Your task to perform on an android device: Add "apple airpods" to the cart on ebay Image 0: 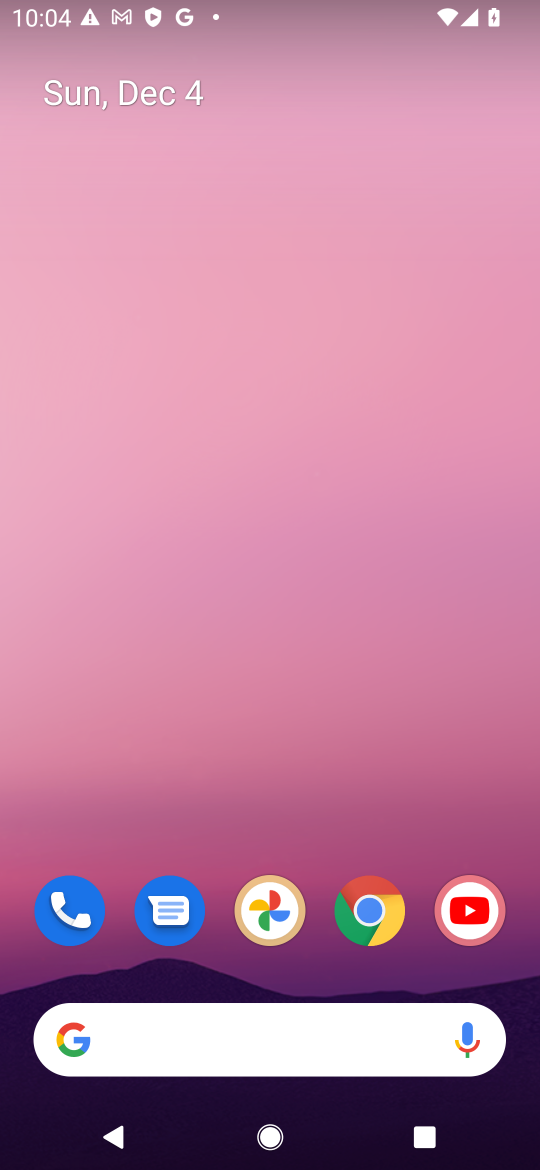
Step 0: drag from (360, 1109) to (313, 23)
Your task to perform on an android device: Add "apple airpods" to the cart on ebay Image 1: 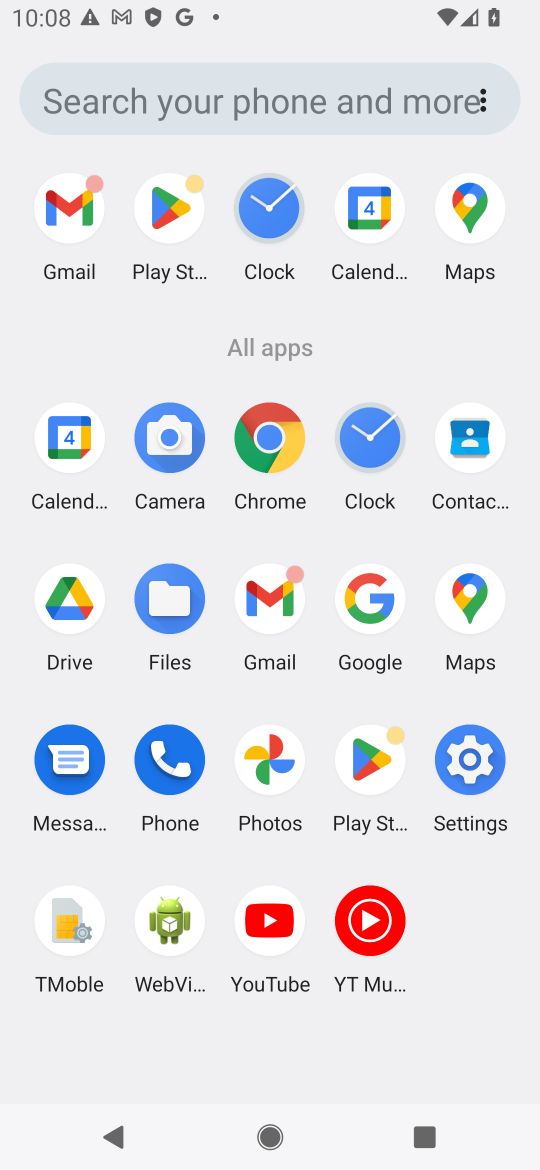
Step 1: click (264, 439)
Your task to perform on an android device: Add "apple airpods" to the cart on ebay Image 2: 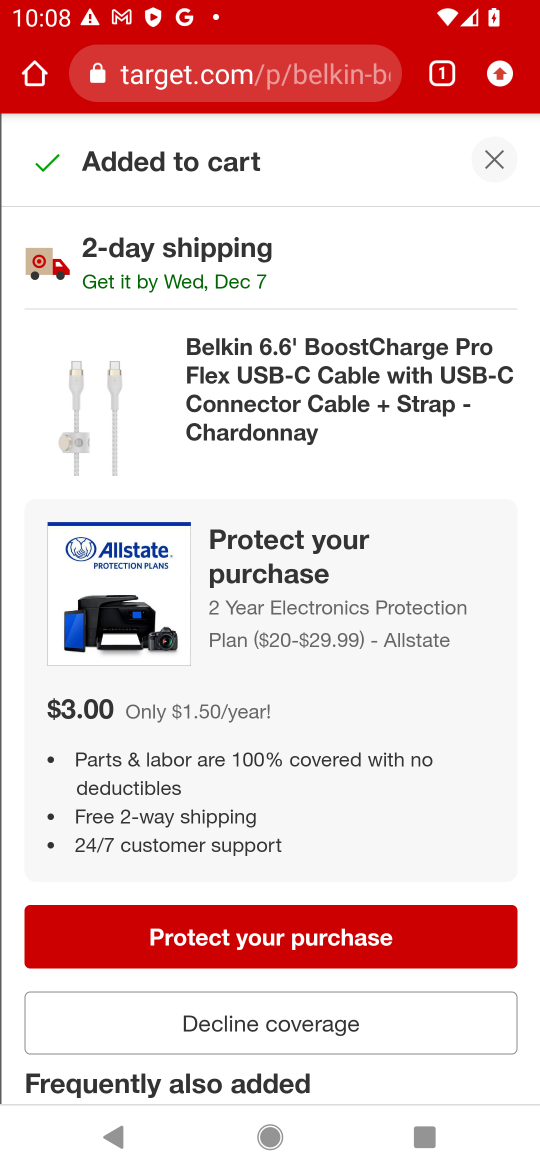
Step 2: click (225, 66)
Your task to perform on an android device: Add "apple airpods" to the cart on ebay Image 3: 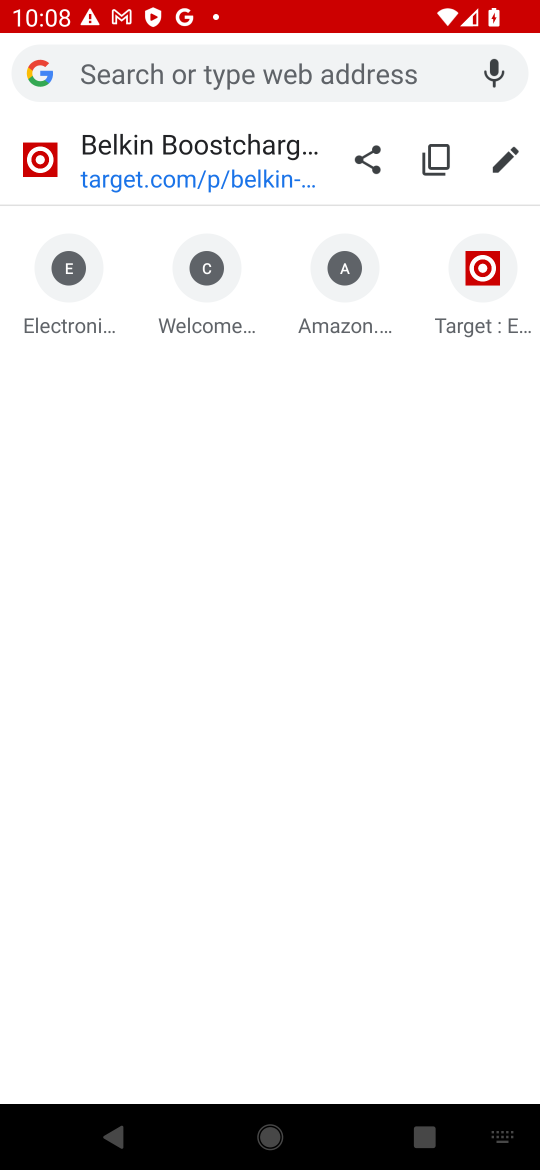
Step 3: type "ebay"
Your task to perform on an android device: Add "apple airpods" to the cart on ebay Image 4: 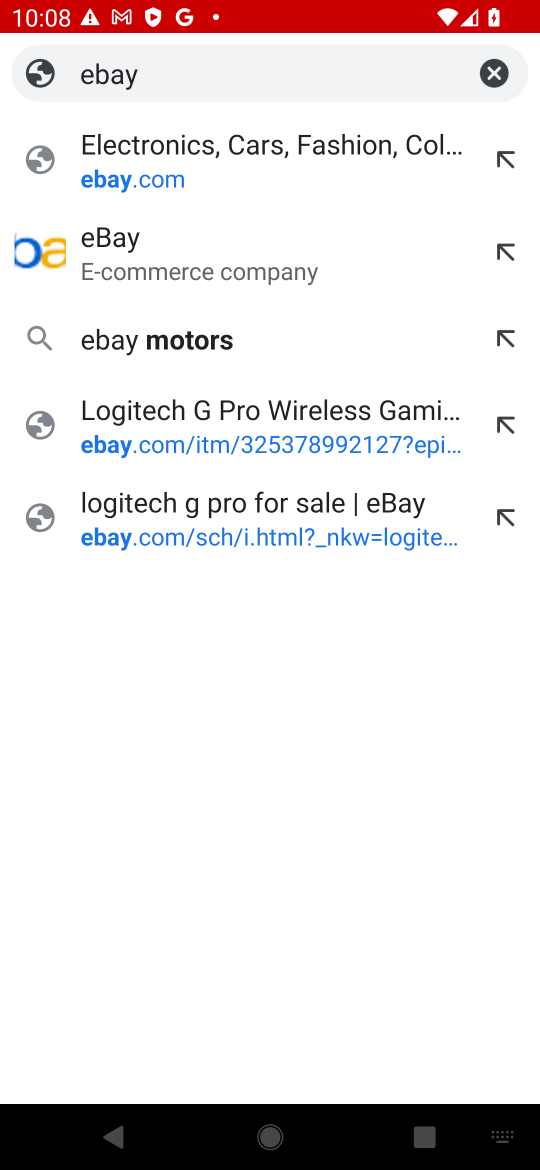
Step 4: click (105, 177)
Your task to perform on an android device: Add "apple airpods" to the cart on ebay Image 5: 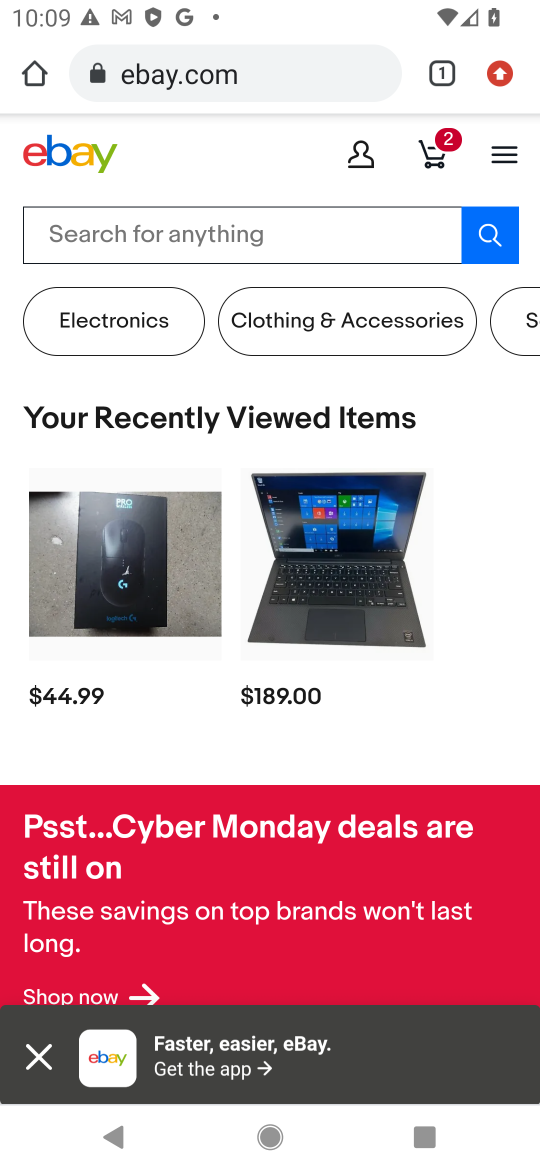
Step 5: click (233, 228)
Your task to perform on an android device: Add "apple airpods" to the cart on ebay Image 6: 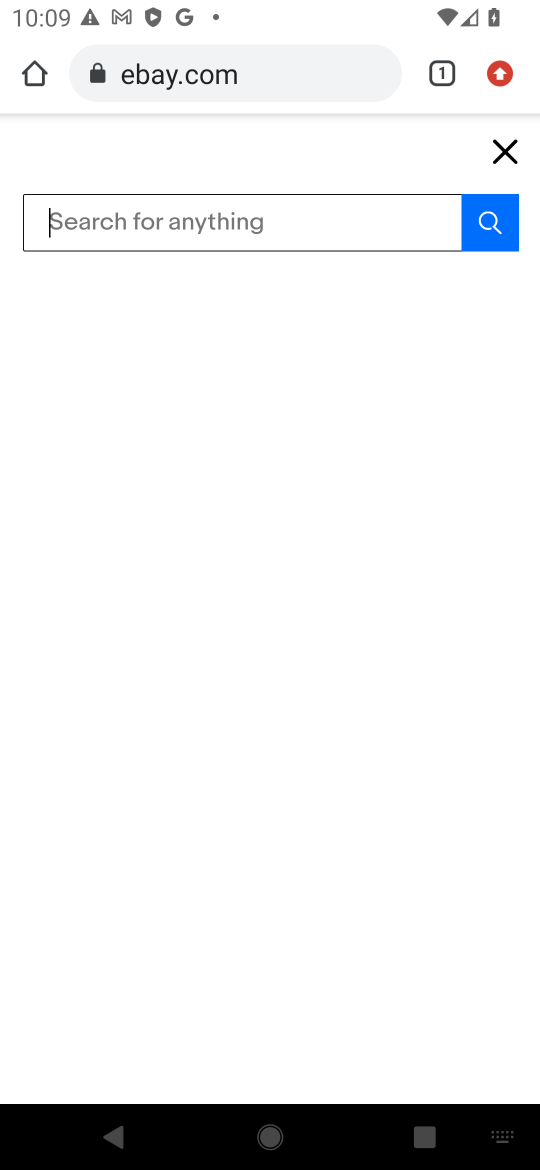
Step 6: type "apple airpods""
Your task to perform on an android device: Add "apple airpods" to the cart on ebay Image 7: 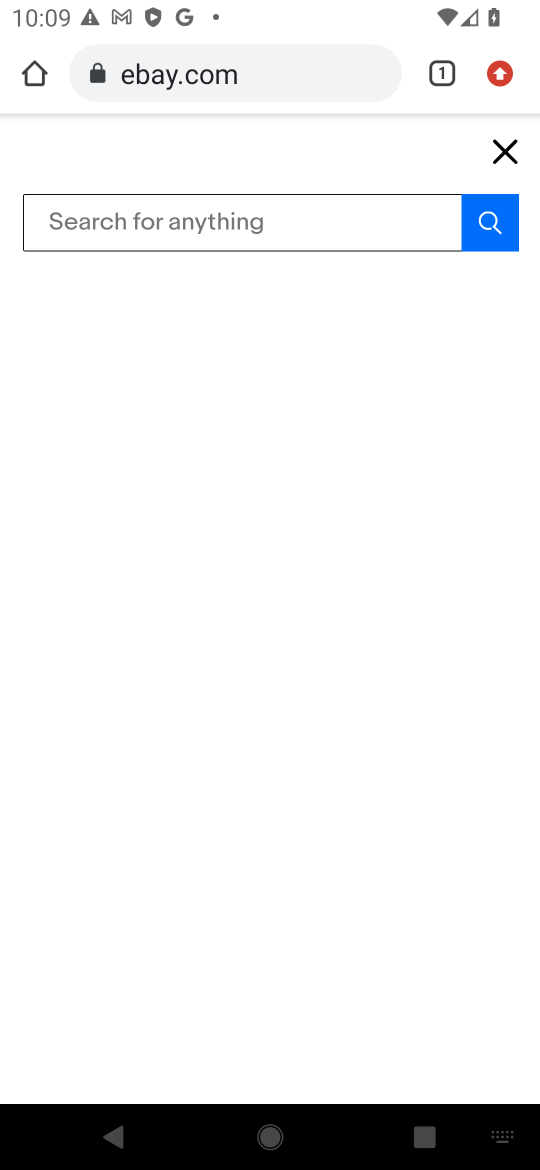
Step 7: type ""
Your task to perform on an android device: Add "apple airpods" to the cart on ebay Image 8: 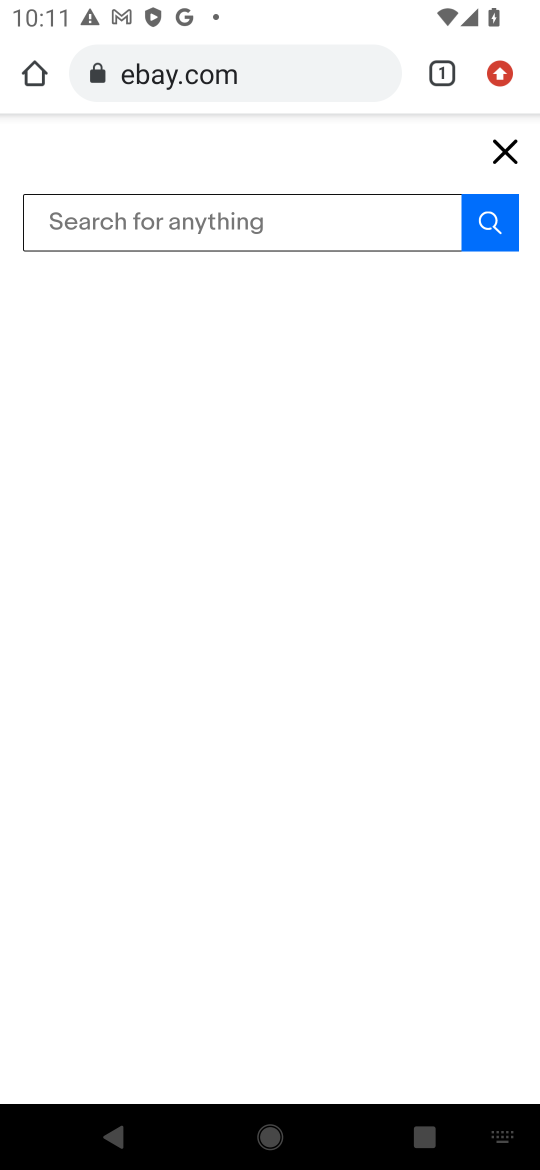
Step 8: type "apple airpods"
Your task to perform on an android device: Add "apple airpods" to the cart on ebay Image 9: 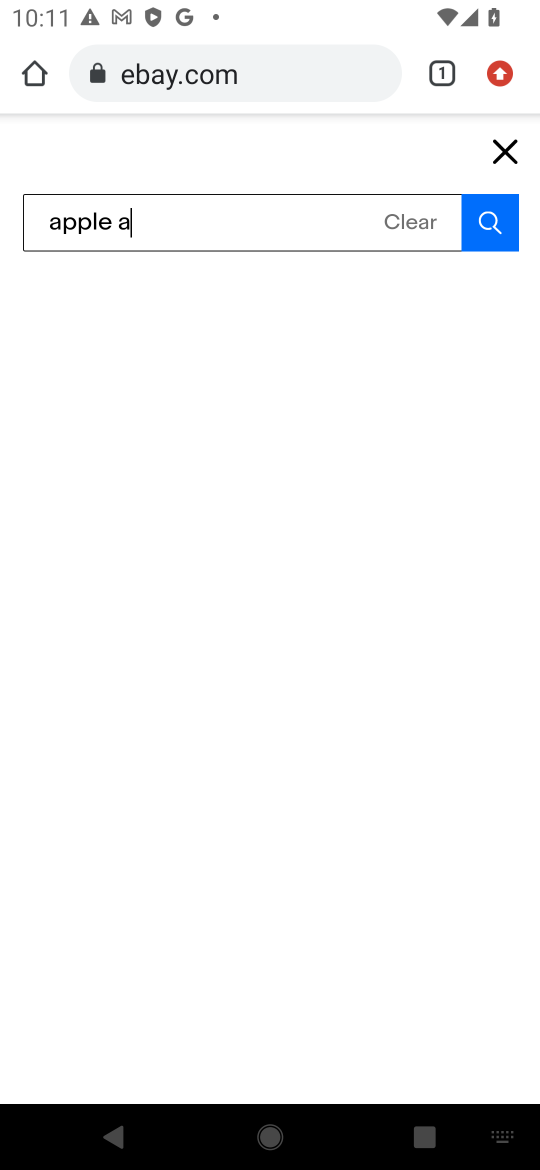
Step 9: type ""
Your task to perform on an android device: Add "apple airpods" to the cart on ebay Image 10: 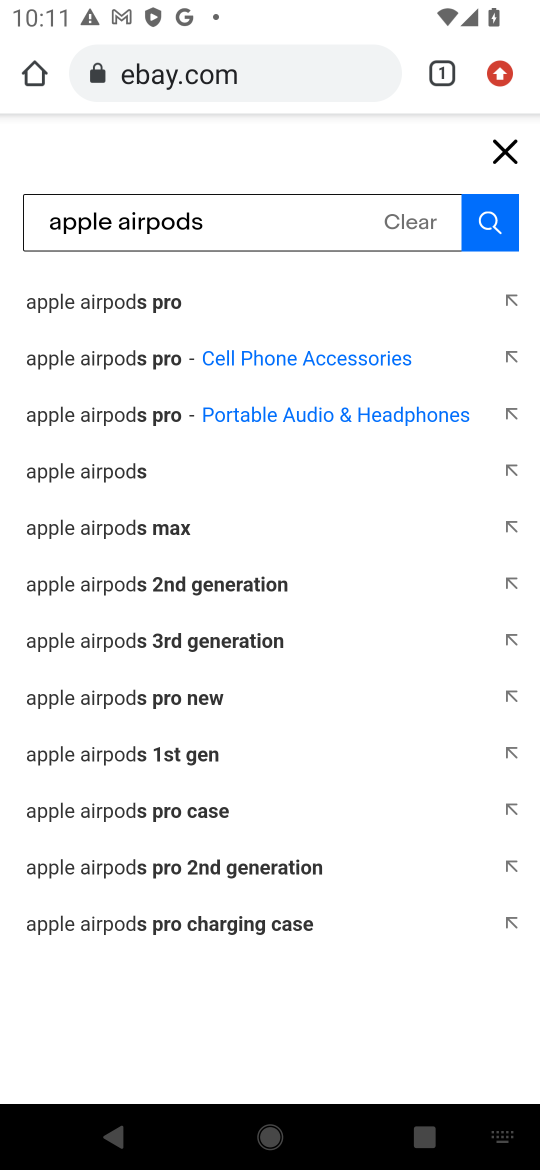
Step 10: click (487, 216)
Your task to perform on an android device: Add "apple airpods" to the cart on ebay Image 11: 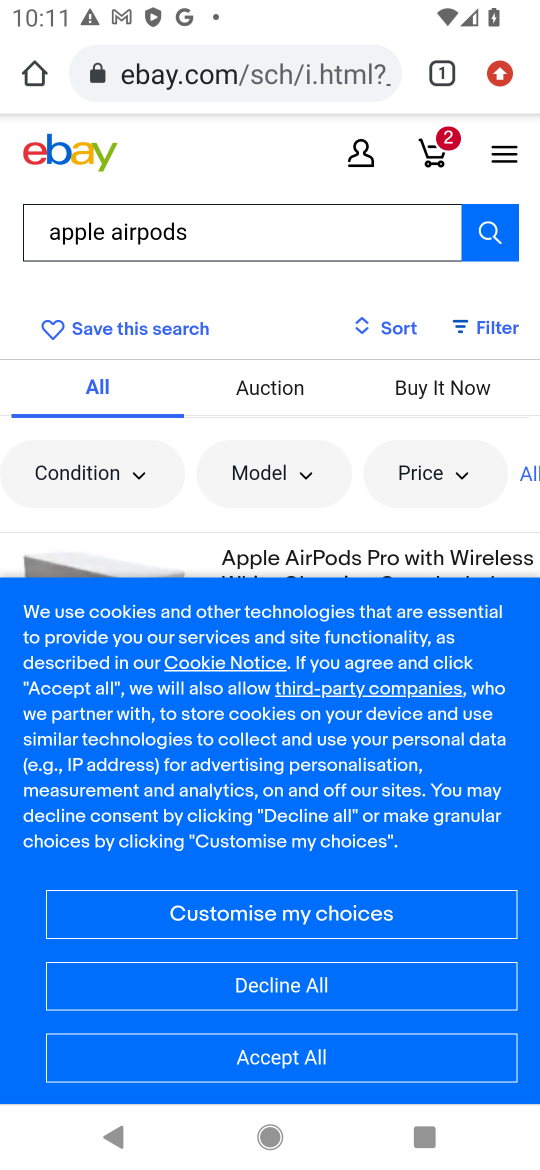
Step 11: click (487, 234)
Your task to perform on an android device: Add "apple airpods" to the cart on ebay Image 12: 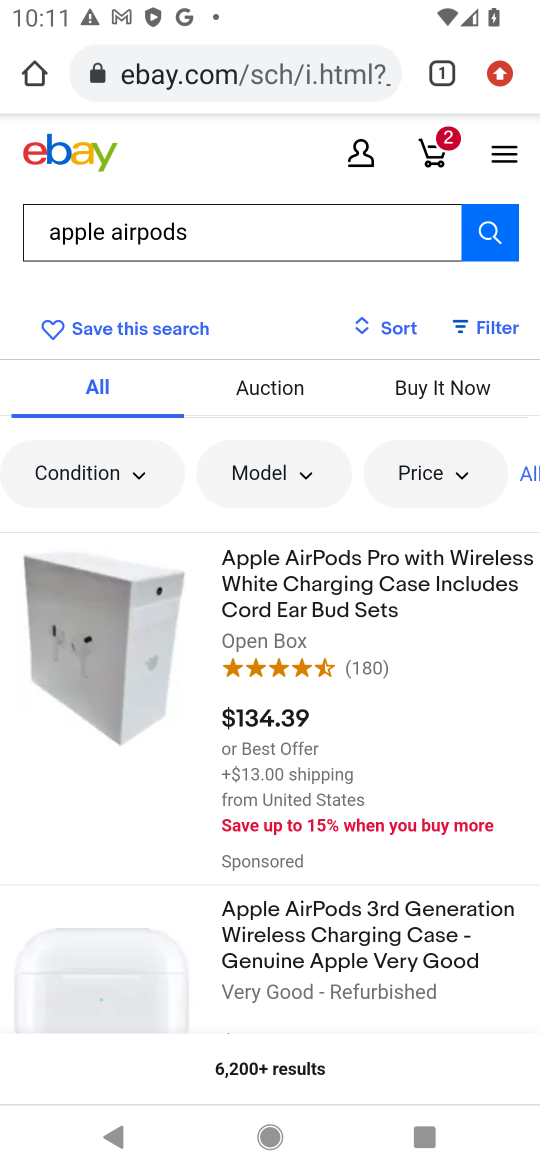
Step 12: click (130, 679)
Your task to perform on an android device: Add "apple airpods" to the cart on ebay Image 13: 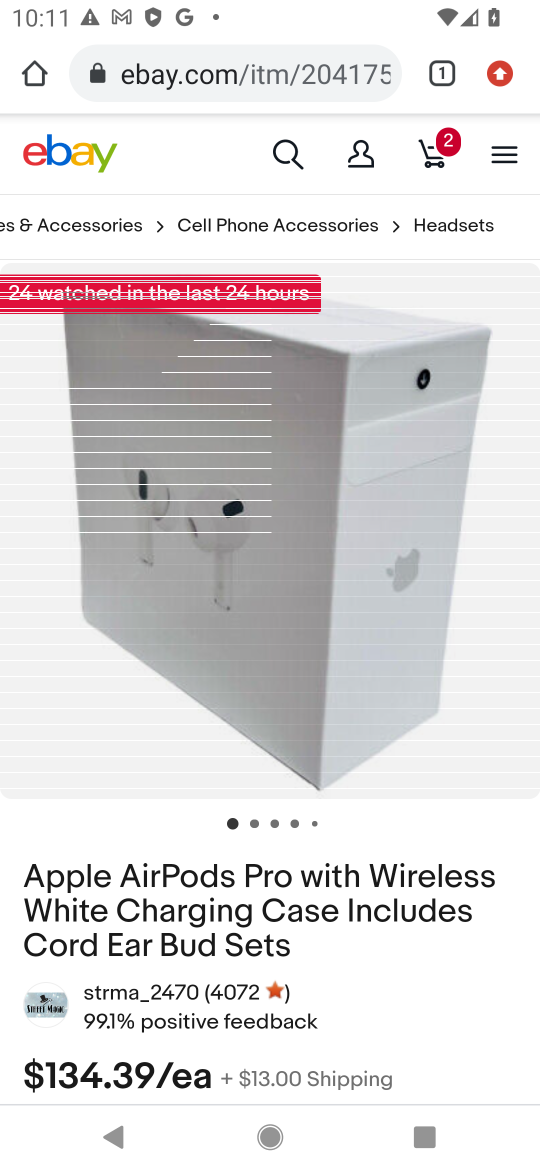
Step 13: drag from (348, 956) to (324, 452)
Your task to perform on an android device: Add "apple airpods" to the cart on ebay Image 14: 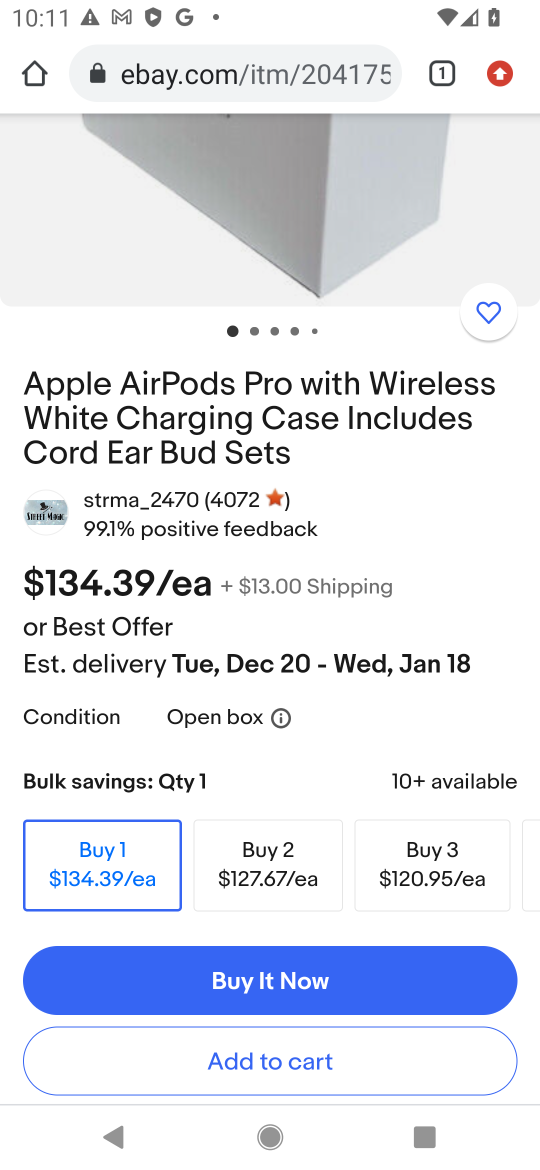
Step 14: click (284, 1054)
Your task to perform on an android device: Add "apple airpods" to the cart on ebay Image 15: 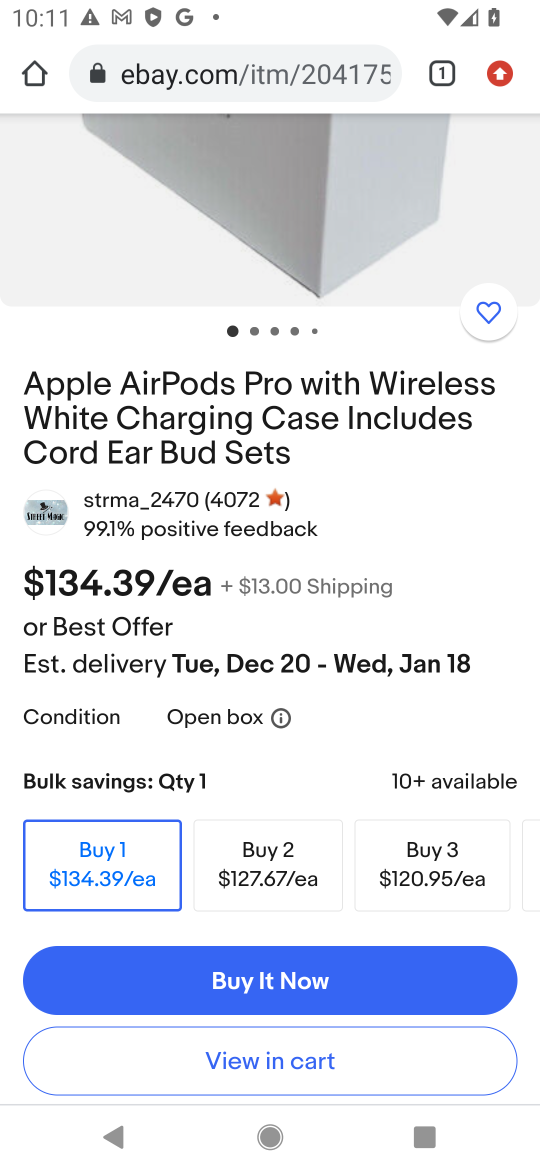
Step 15: task complete